Your task to perform on an android device: turn pop-ups off in chrome Image 0: 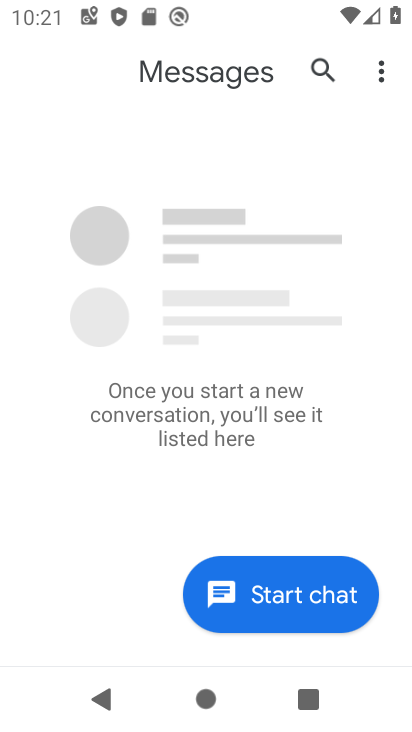
Step 0: press home button
Your task to perform on an android device: turn pop-ups off in chrome Image 1: 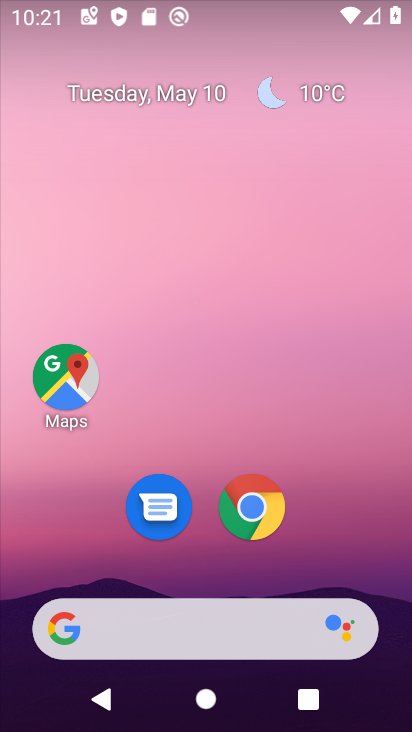
Step 1: click (352, 486)
Your task to perform on an android device: turn pop-ups off in chrome Image 2: 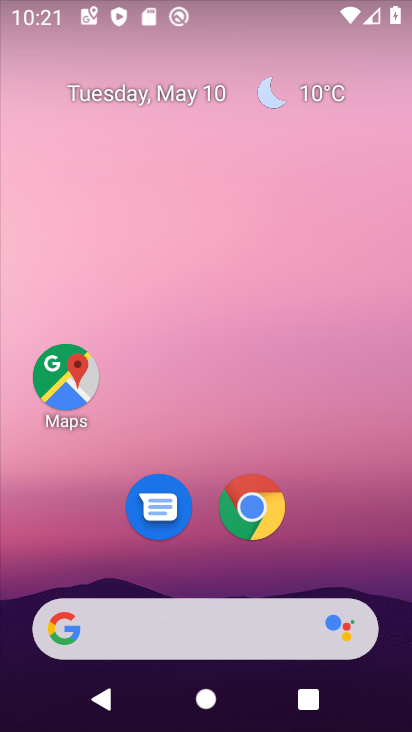
Step 2: click (251, 516)
Your task to perform on an android device: turn pop-ups off in chrome Image 3: 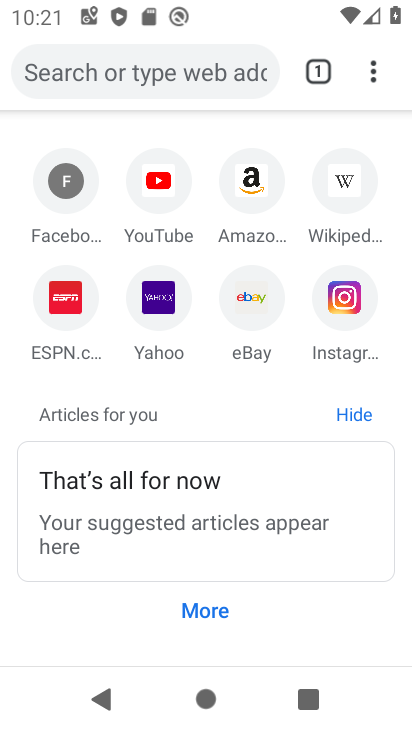
Step 3: click (375, 83)
Your task to perform on an android device: turn pop-ups off in chrome Image 4: 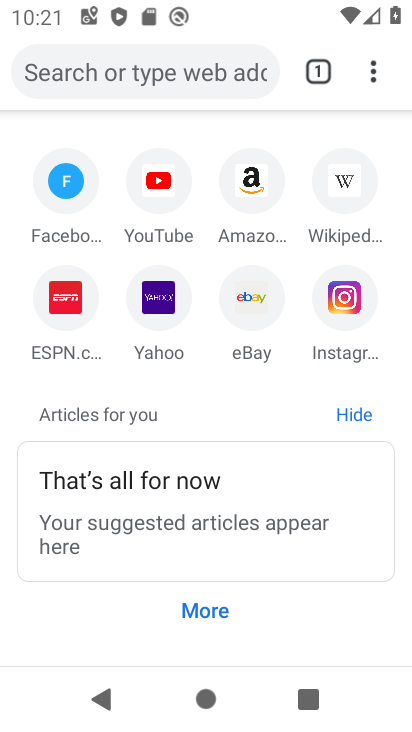
Step 4: drag from (366, 74) to (205, 510)
Your task to perform on an android device: turn pop-ups off in chrome Image 5: 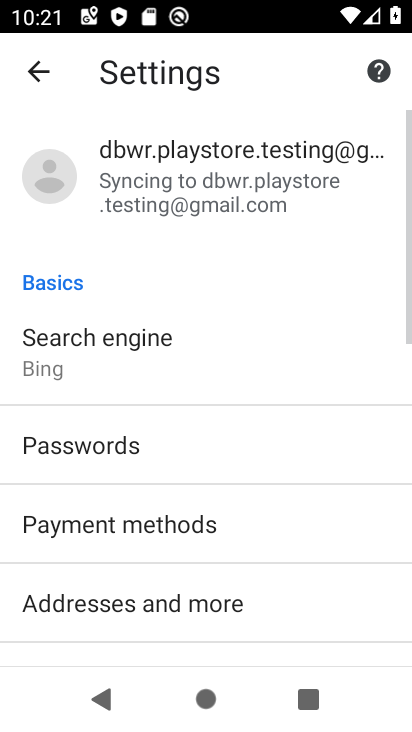
Step 5: drag from (209, 608) to (241, 175)
Your task to perform on an android device: turn pop-ups off in chrome Image 6: 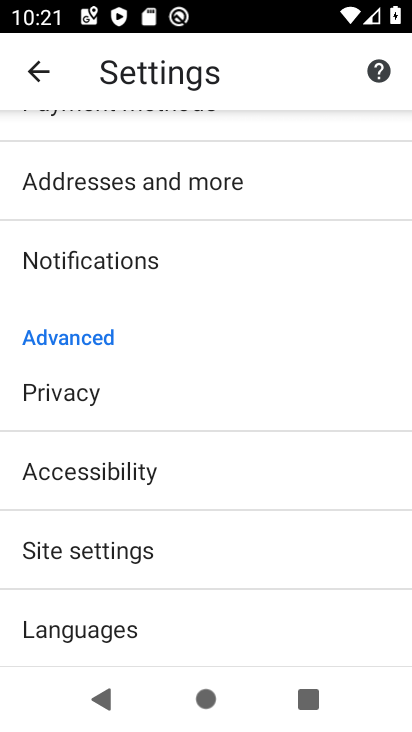
Step 6: drag from (228, 616) to (242, 475)
Your task to perform on an android device: turn pop-ups off in chrome Image 7: 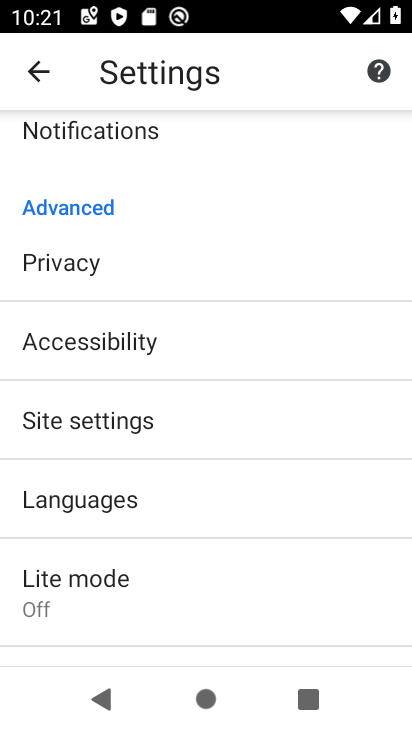
Step 7: click (119, 439)
Your task to perform on an android device: turn pop-ups off in chrome Image 8: 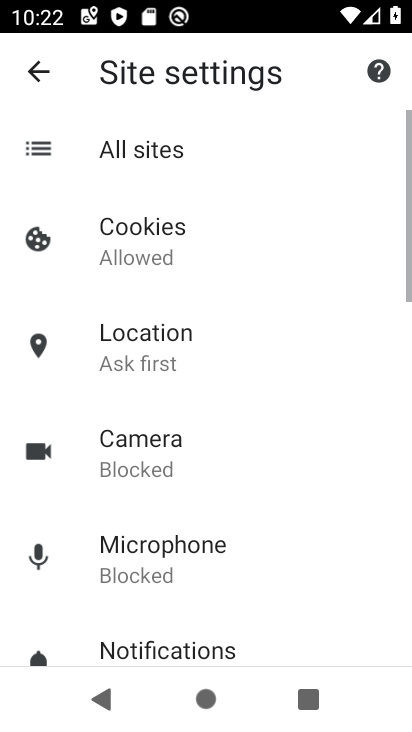
Step 8: drag from (258, 598) to (258, 370)
Your task to perform on an android device: turn pop-ups off in chrome Image 9: 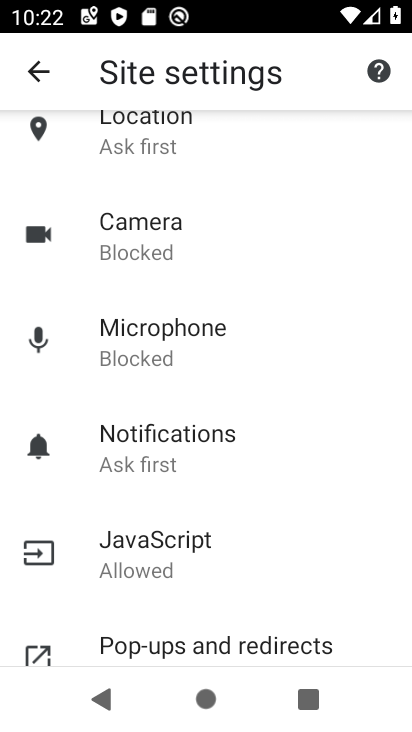
Step 9: click (247, 637)
Your task to perform on an android device: turn pop-ups off in chrome Image 10: 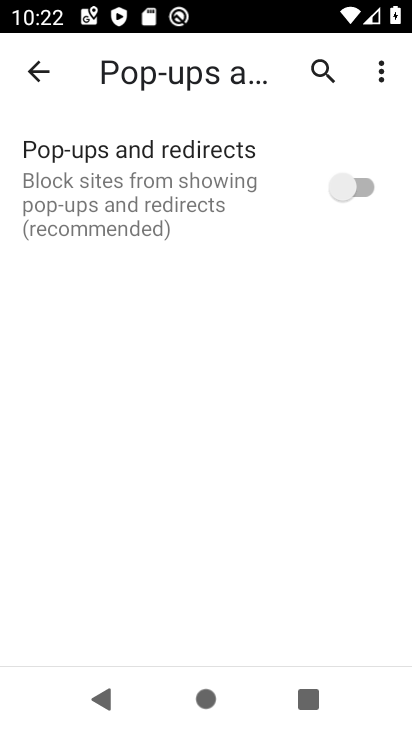
Step 10: task complete